Your task to perform on an android device: Open Chrome and go to the settings page Image 0: 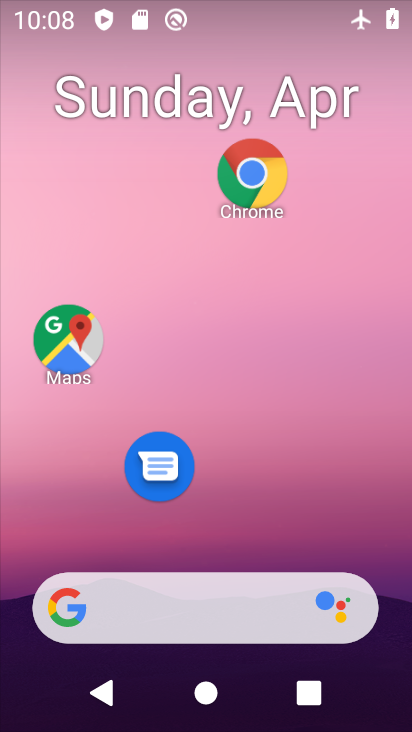
Step 0: drag from (194, 489) to (196, 29)
Your task to perform on an android device: Open Chrome and go to the settings page Image 1: 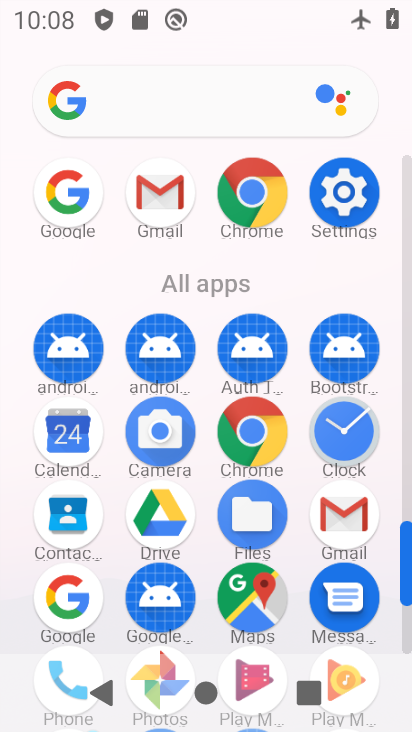
Step 1: click (235, 191)
Your task to perform on an android device: Open Chrome and go to the settings page Image 2: 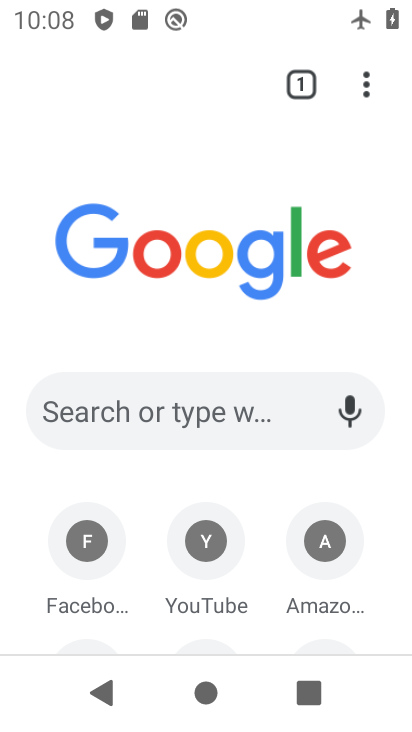
Step 2: click (381, 82)
Your task to perform on an android device: Open Chrome and go to the settings page Image 3: 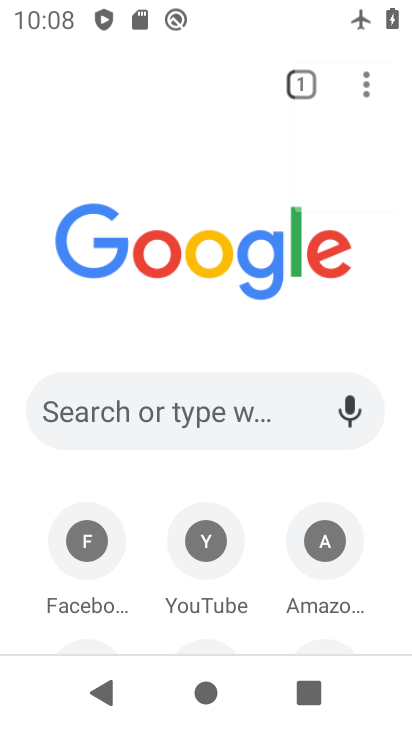
Step 3: task complete